Your task to perform on an android device: Search for a new lawnmower on home depot Image 0: 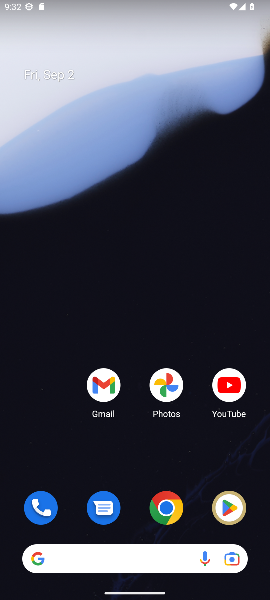
Step 0: drag from (148, 455) to (127, 19)
Your task to perform on an android device: Search for a new lawnmower on home depot Image 1: 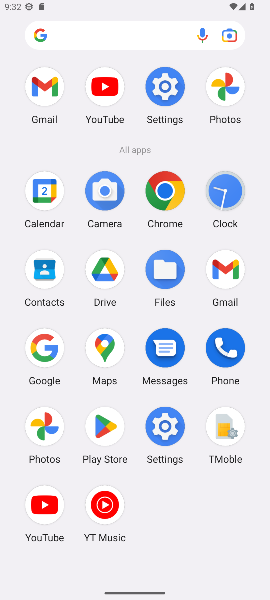
Step 1: click (167, 198)
Your task to perform on an android device: Search for a new lawnmower on home depot Image 2: 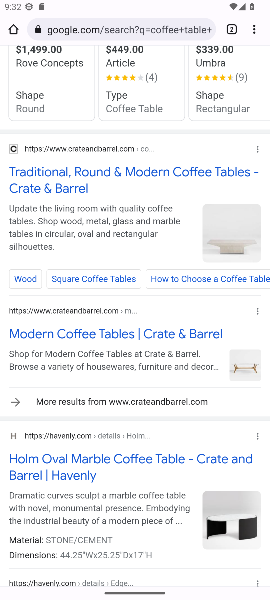
Step 2: click (165, 25)
Your task to perform on an android device: Search for a new lawnmower on home depot Image 3: 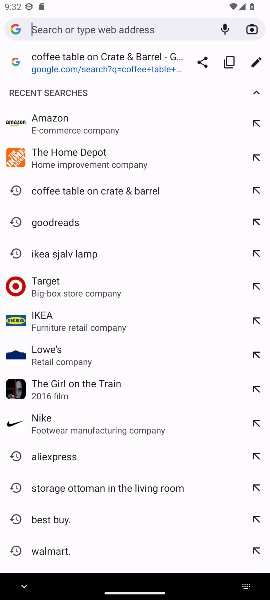
Step 3: type "home depot"
Your task to perform on an android device: Search for a new lawnmower on home depot Image 4: 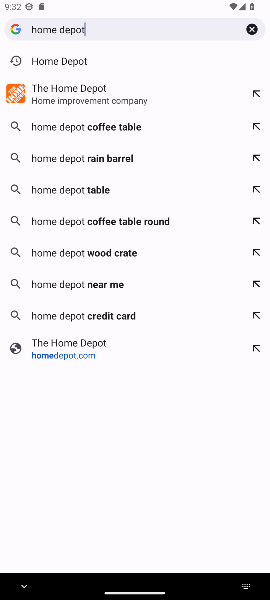
Step 4: click (59, 56)
Your task to perform on an android device: Search for a new lawnmower on home depot Image 5: 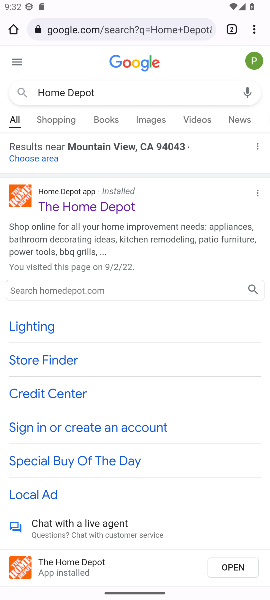
Step 5: click (120, 207)
Your task to perform on an android device: Search for a new lawnmower on home depot Image 6: 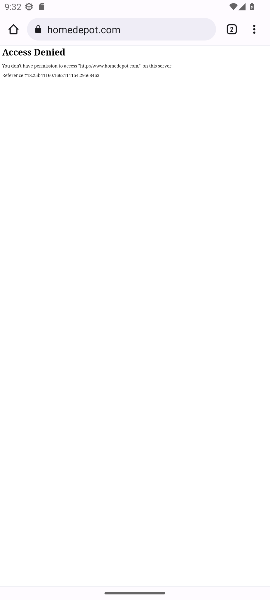
Step 6: task complete